Your task to perform on an android device: Go to internet settings Image 0: 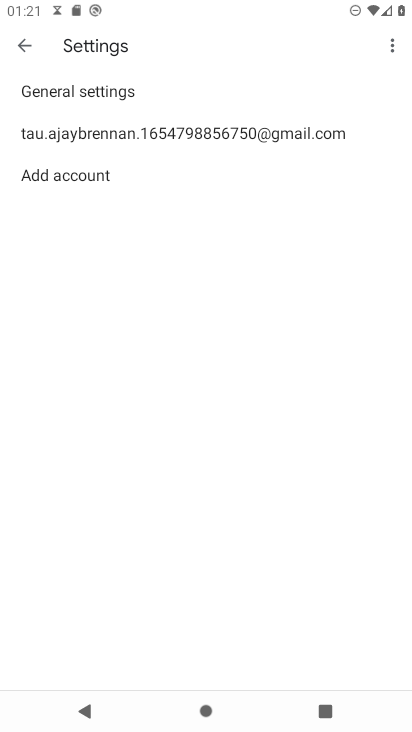
Step 0: press home button
Your task to perform on an android device: Go to internet settings Image 1: 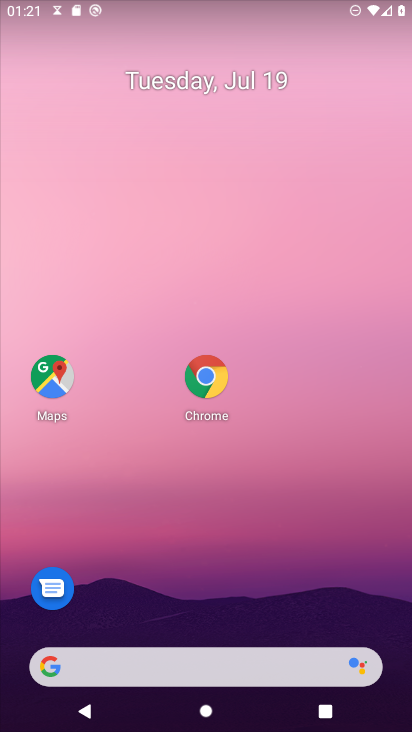
Step 1: drag from (375, 369) to (288, 69)
Your task to perform on an android device: Go to internet settings Image 2: 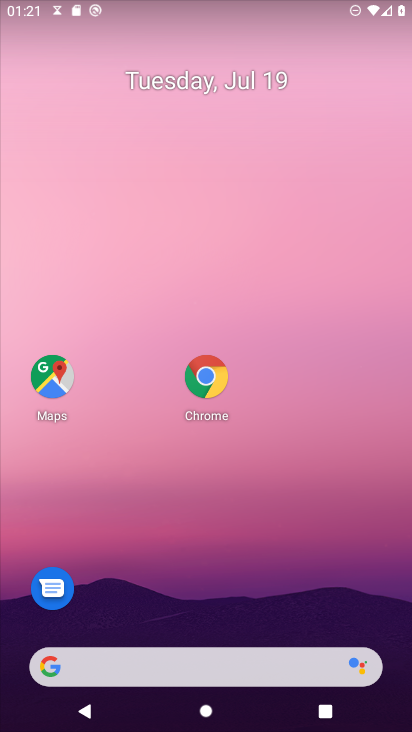
Step 2: drag from (304, 514) to (275, 28)
Your task to perform on an android device: Go to internet settings Image 3: 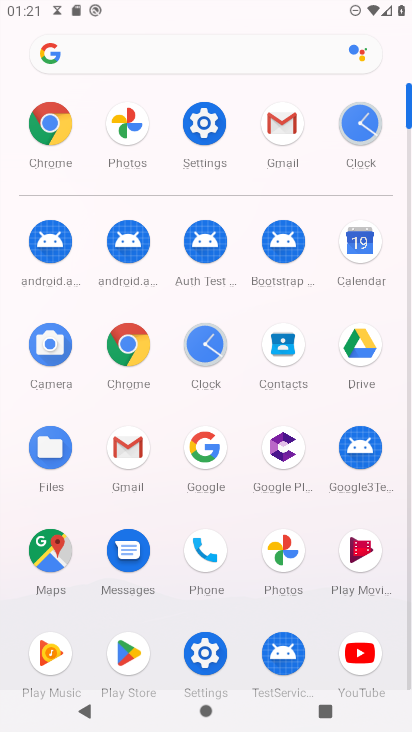
Step 3: click (205, 125)
Your task to perform on an android device: Go to internet settings Image 4: 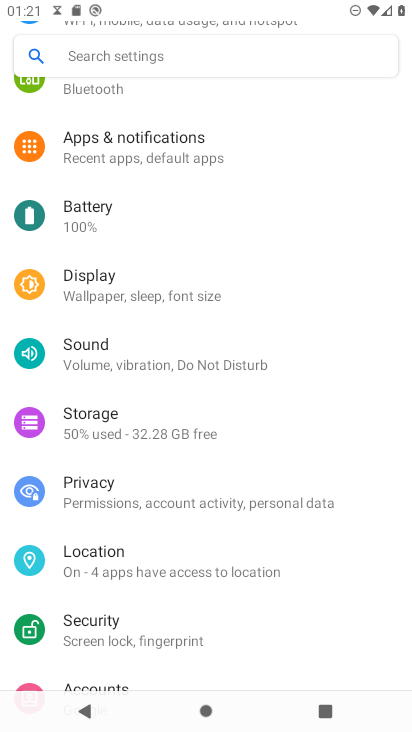
Step 4: drag from (145, 181) to (144, 367)
Your task to perform on an android device: Go to internet settings Image 5: 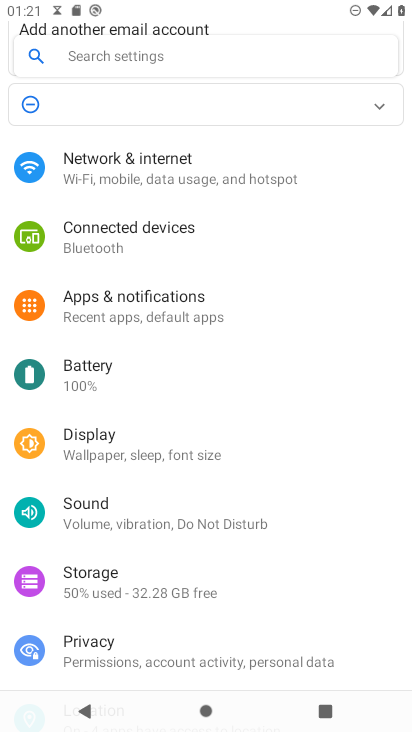
Step 5: click (129, 160)
Your task to perform on an android device: Go to internet settings Image 6: 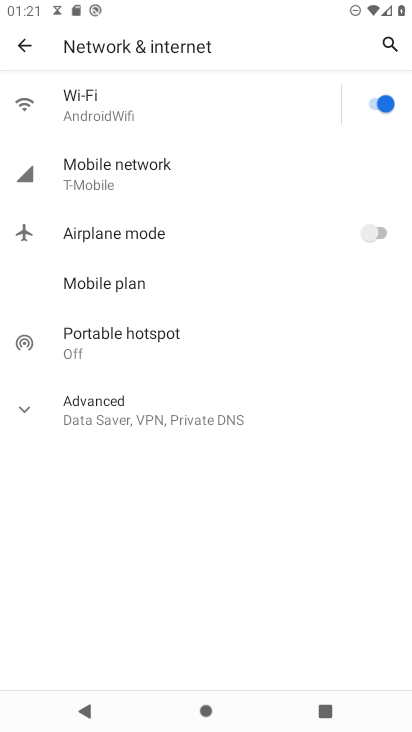
Step 6: task complete